Your task to perform on an android device: Open Yahoo.com Image 0: 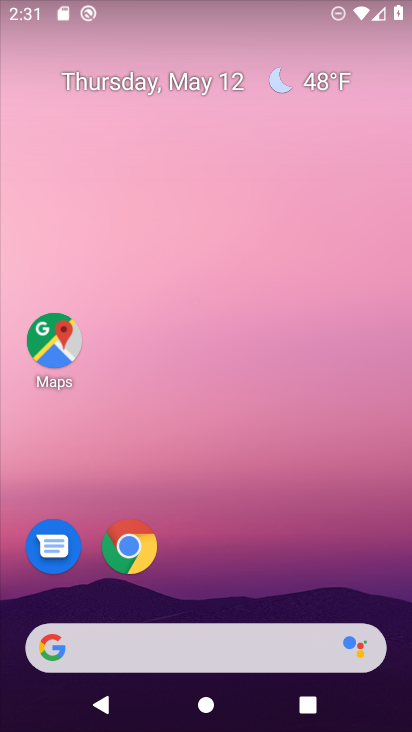
Step 0: drag from (237, 683) to (319, 109)
Your task to perform on an android device: Open Yahoo.com Image 1: 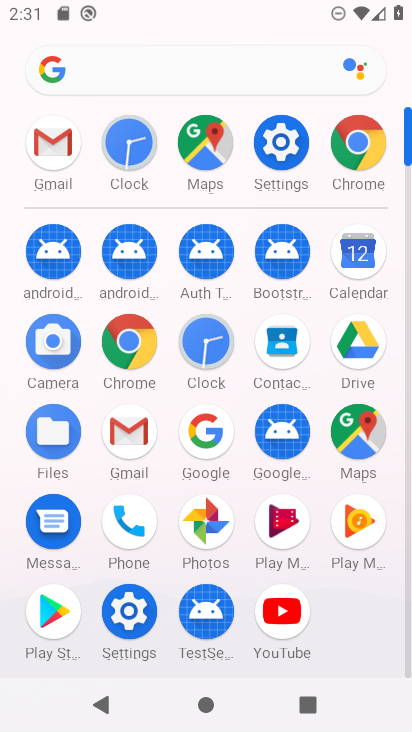
Step 1: click (352, 155)
Your task to perform on an android device: Open Yahoo.com Image 2: 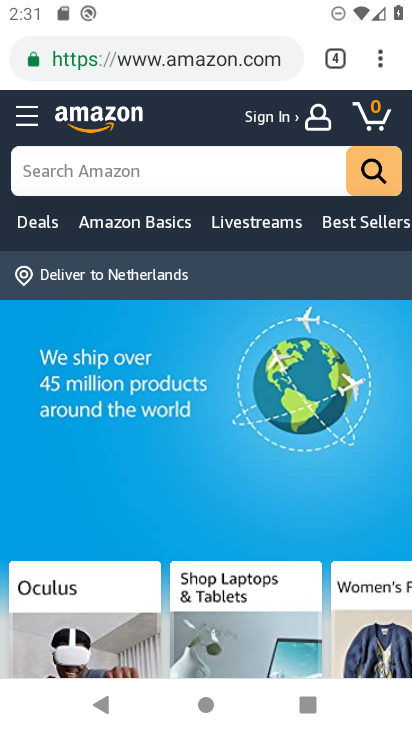
Step 2: click (345, 60)
Your task to perform on an android device: Open Yahoo.com Image 3: 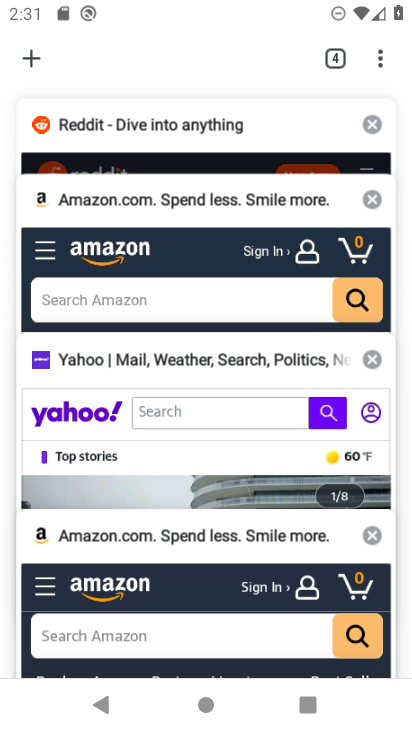
Step 3: click (28, 45)
Your task to perform on an android device: Open Yahoo.com Image 4: 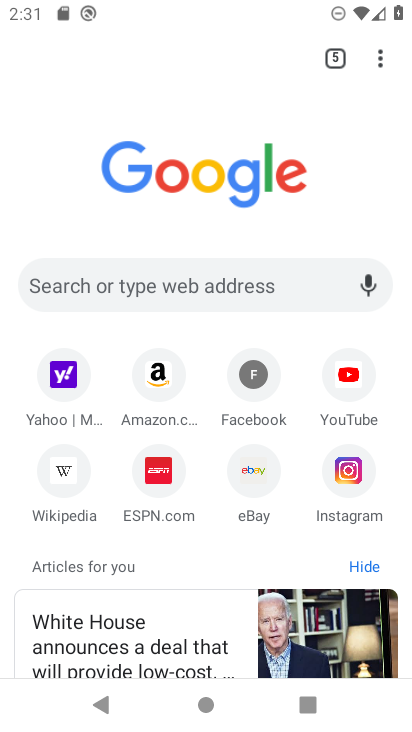
Step 4: click (73, 380)
Your task to perform on an android device: Open Yahoo.com Image 5: 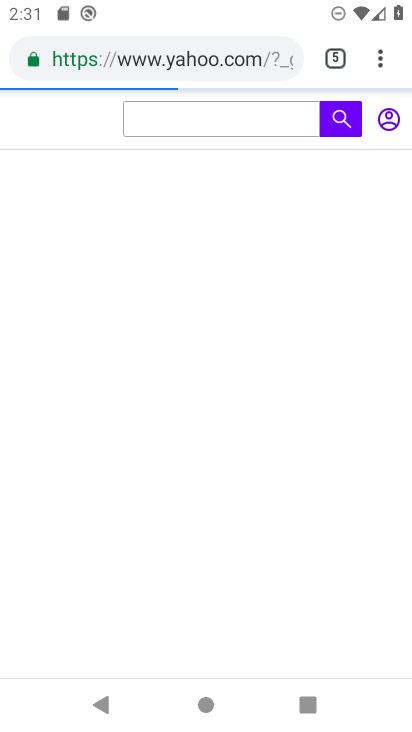
Step 5: task complete